Your task to perform on an android device: open wifi settings Image 0: 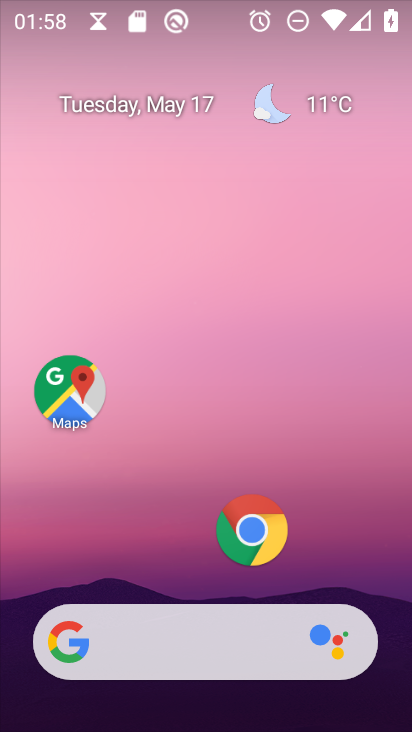
Step 0: drag from (361, 583) to (361, 241)
Your task to perform on an android device: open wifi settings Image 1: 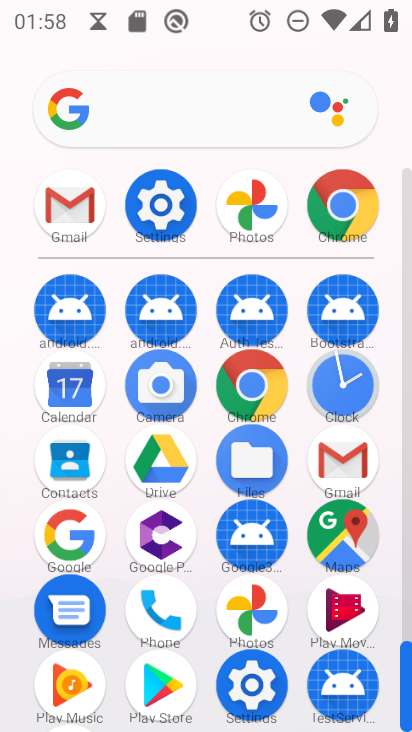
Step 1: click (145, 217)
Your task to perform on an android device: open wifi settings Image 2: 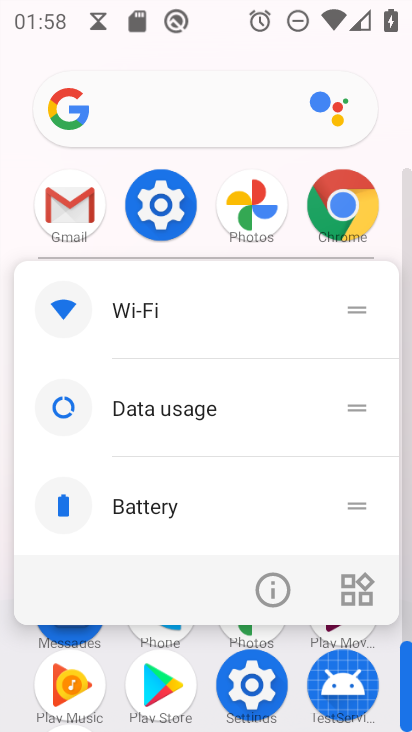
Step 2: click (152, 236)
Your task to perform on an android device: open wifi settings Image 3: 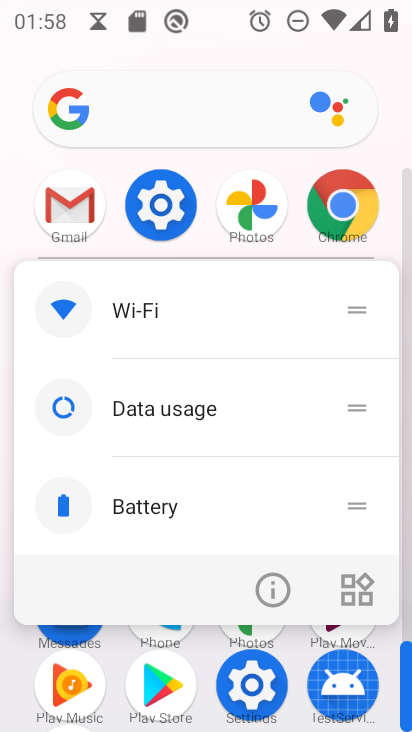
Step 3: click (152, 235)
Your task to perform on an android device: open wifi settings Image 4: 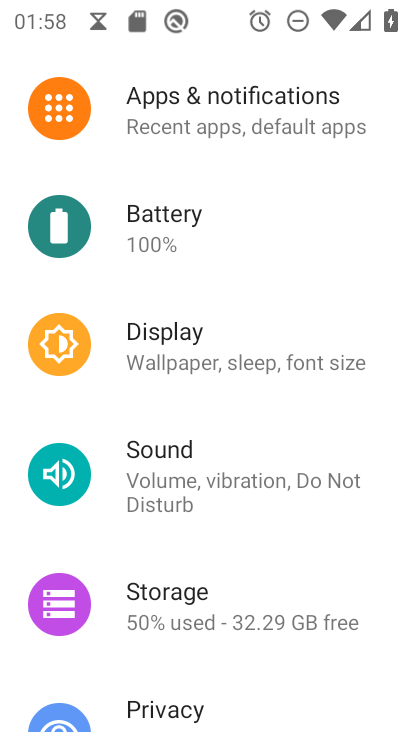
Step 4: drag from (236, 126) to (225, 596)
Your task to perform on an android device: open wifi settings Image 5: 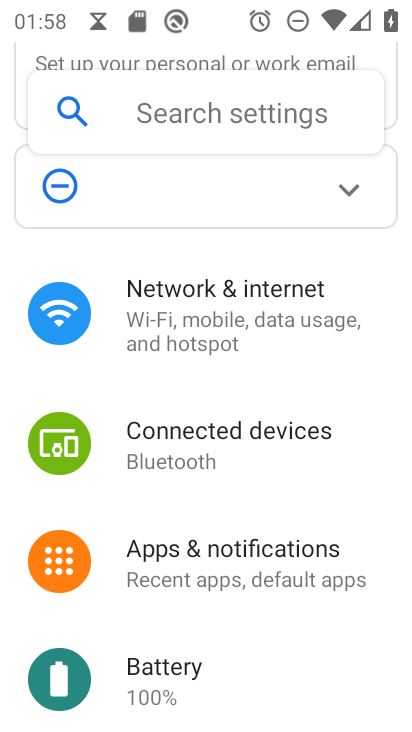
Step 5: click (183, 340)
Your task to perform on an android device: open wifi settings Image 6: 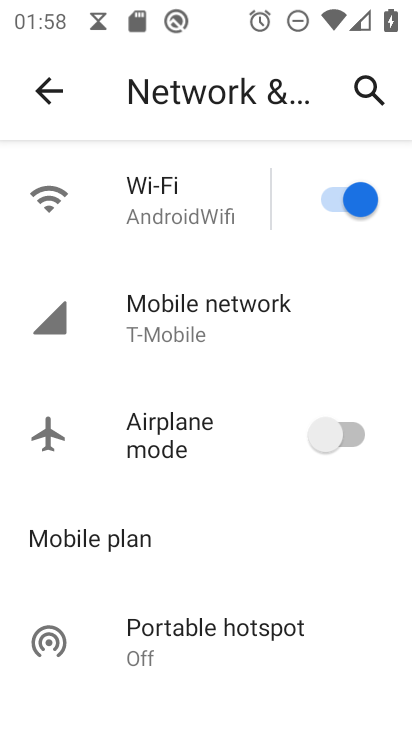
Step 6: task complete